Your task to perform on an android device: empty trash in the gmail app Image 0: 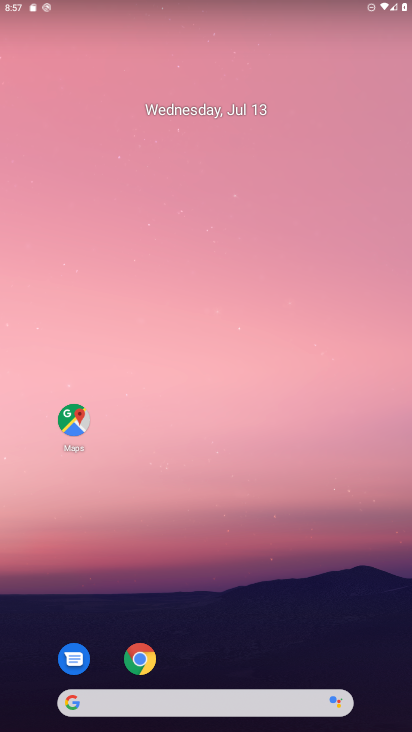
Step 0: drag from (215, 640) to (238, 75)
Your task to perform on an android device: empty trash in the gmail app Image 1: 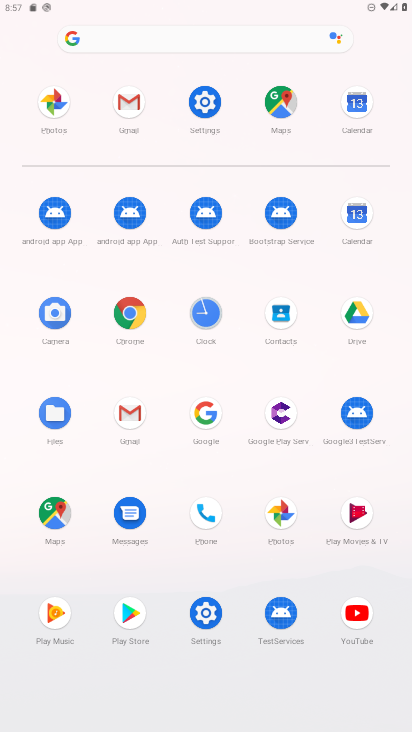
Step 1: click (132, 97)
Your task to perform on an android device: empty trash in the gmail app Image 2: 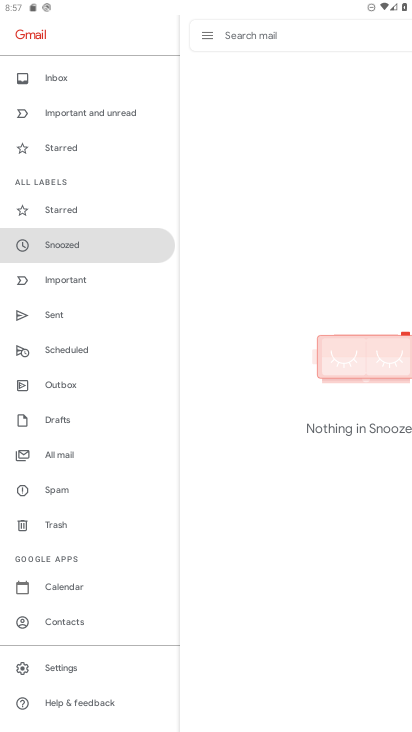
Step 2: click (63, 521)
Your task to perform on an android device: empty trash in the gmail app Image 3: 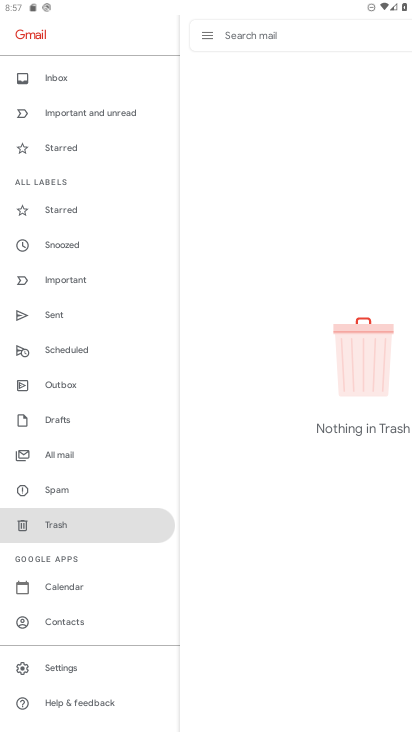
Step 3: task complete